Your task to perform on an android device: toggle data saver in the chrome app Image 0: 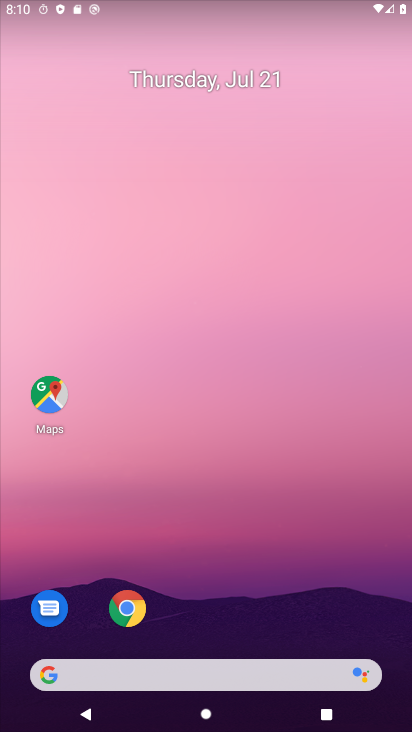
Step 0: press home button
Your task to perform on an android device: toggle data saver in the chrome app Image 1: 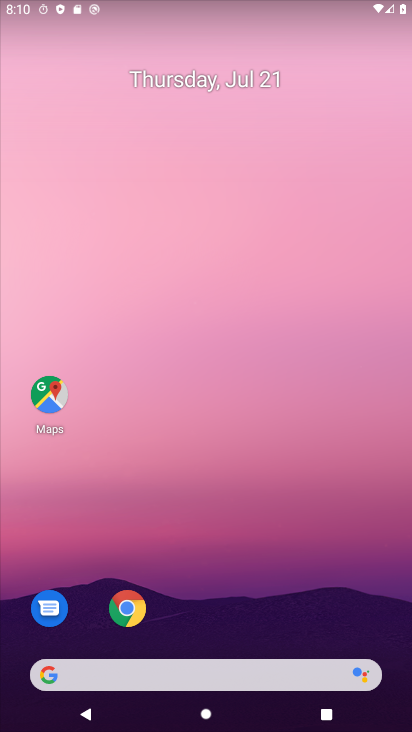
Step 1: click (118, 607)
Your task to perform on an android device: toggle data saver in the chrome app Image 2: 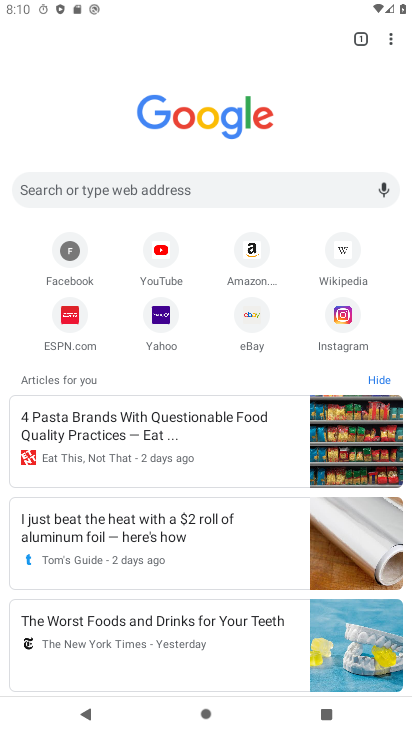
Step 2: drag from (386, 26) to (263, 320)
Your task to perform on an android device: toggle data saver in the chrome app Image 3: 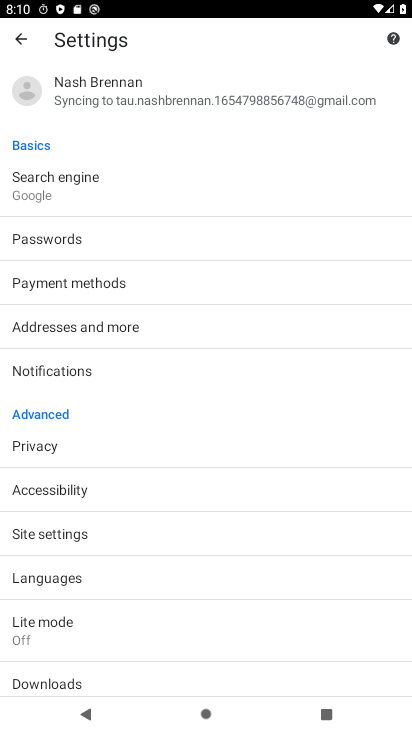
Step 3: click (35, 622)
Your task to perform on an android device: toggle data saver in the chrome app Image 4: 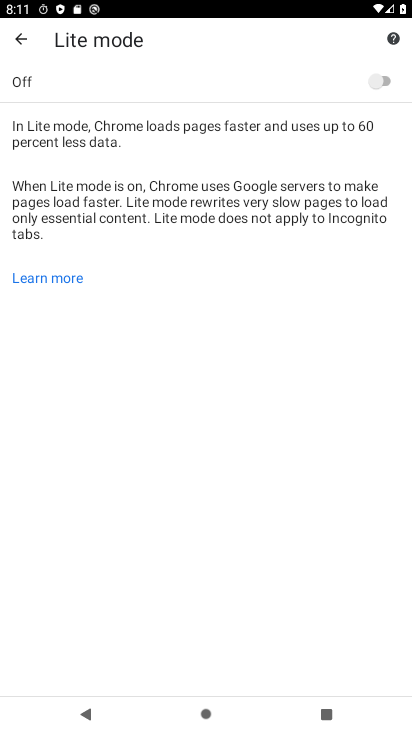
Step 4: click (380, 76)
Your task to perform on an android device: toggle data saver in the chrome app Image 5: 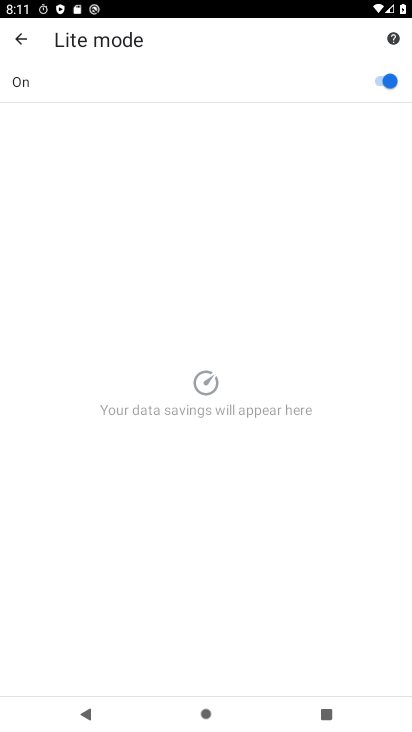
Step 5: task complete